Your task to perform on an android device: Show me productivity apps on the Play Store Image 0: 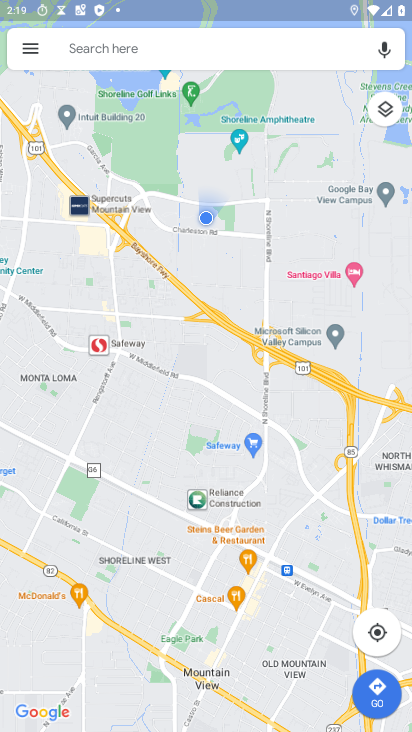
Step 0: press home button
Your task to perform on an android device: Show me productivity apps on the Play Store Image 1: 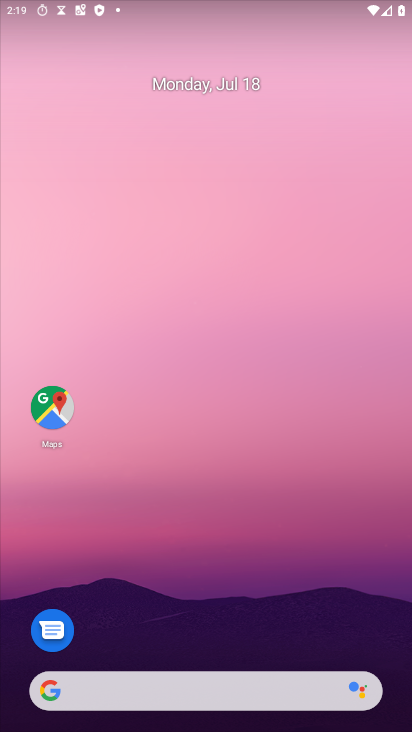
Step 1: drag from (241, 631) to (215, 92)
Your task to perform on an android device: Show me productivity apps on the Play Store Image 2: 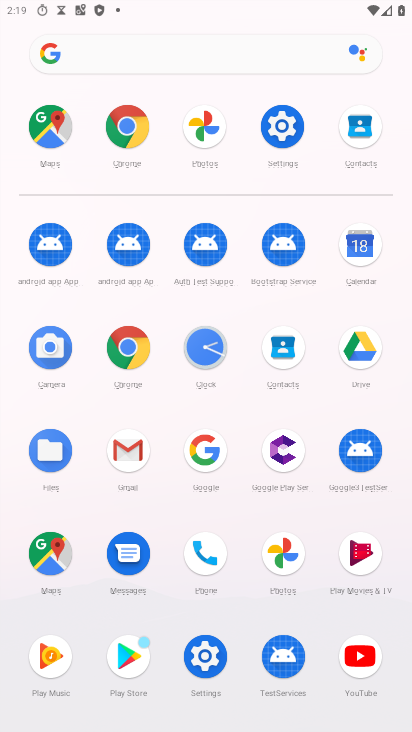
Step 2: click (130, 655)
Your task to perform on an android device: Show me productivity apps on the Play Store Image 3: 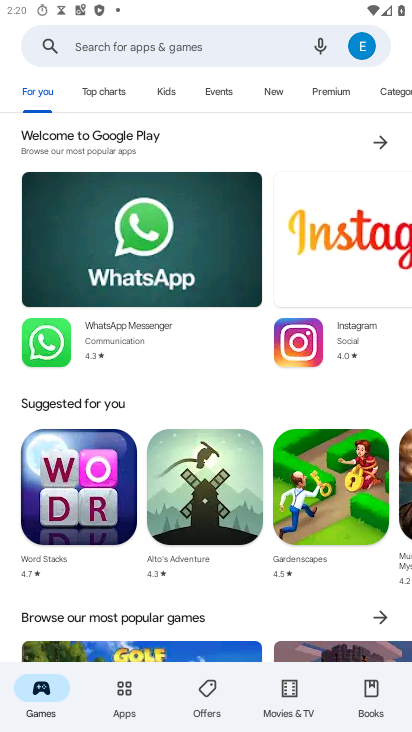
Step 3: click (121, 696)
Your task to perform on an android device: Show me productivity apps on the Play Store Image 4: 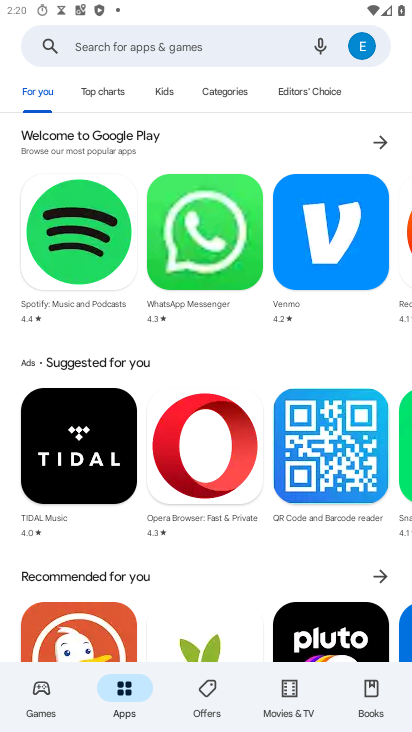
Step 4: drag from (248, 569) to (266, 56)
Your task to perform on an android device: Show me productivity apps on the Play Store Image 5: 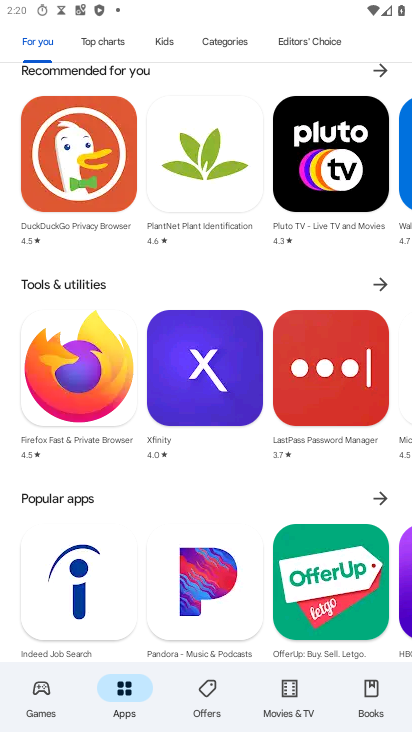
Step 5: drag from (237, 507) to (281, 99)
Your task to perform on an android device: Show me productivity apps on the Play Store Image 6: 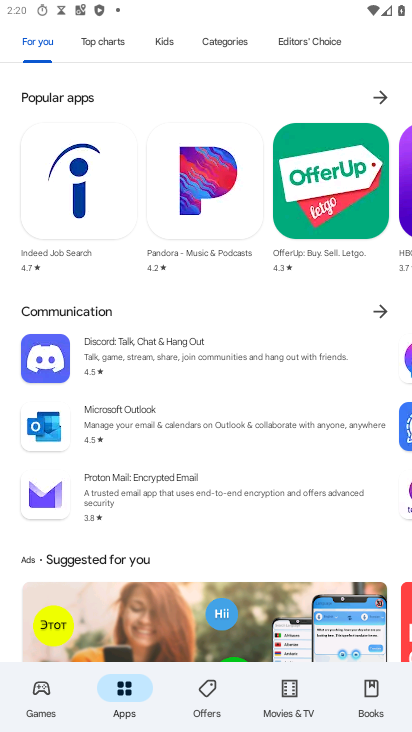
Step 6: drag from (275, 478) to (310, 126)
Your task to perform on an android device: Show me productivity apps on the Play Store Image 7: 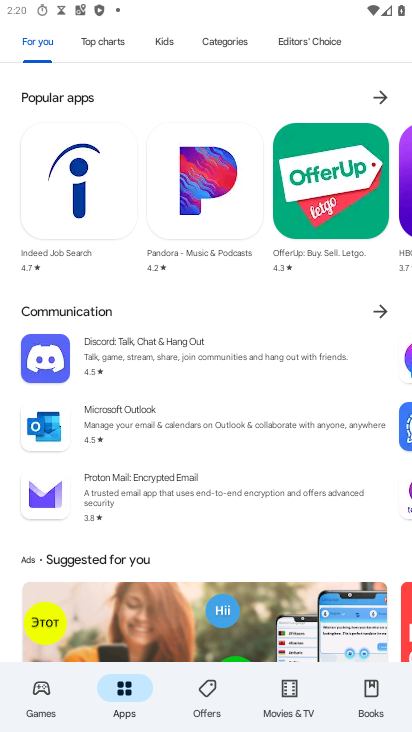
Step 7: drag from (221, 551) to (297, 162)
Your task to perform on an android device: Show me productivity apps on the Play Store Image 8: 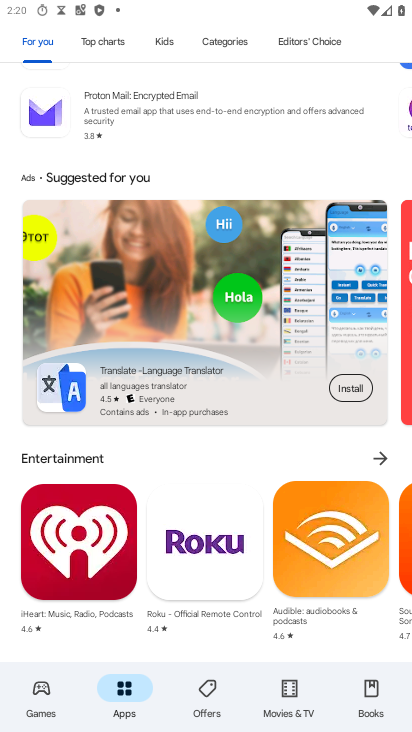
Step 8: drag from (269, 595) to (280, 197)
Your task to perform on an android device: Show me productivity apps on the Play Store Image 9: 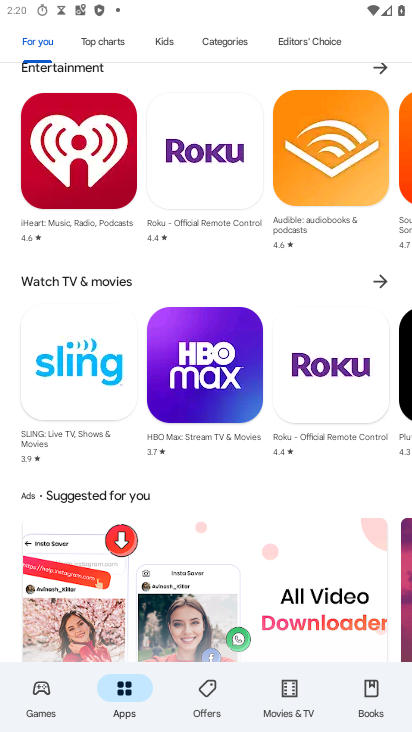
Step 9: drag from (216, 581) to (238, 80)
Your task to perform on an android device: Show me productivity apps on the Play Store Image 10: 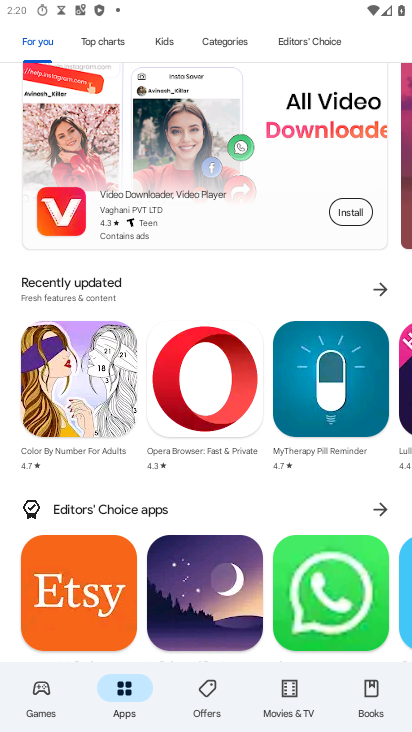
Step 10: drag from (251, 598) to (309, 134)
Your task to perform on an android device: Show me productivity apps on the Play Store Image 11: 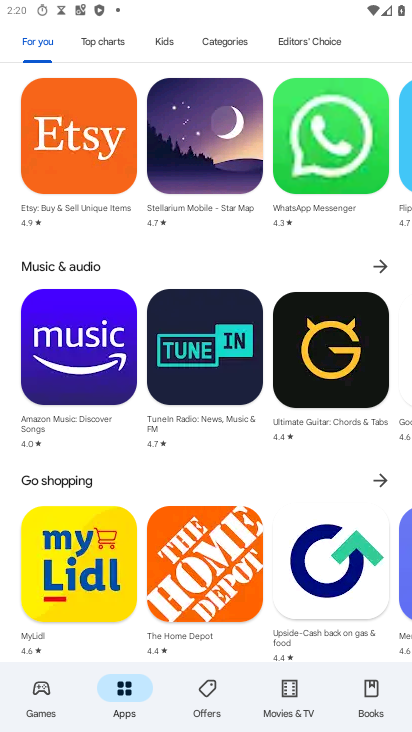
Step 11: drag from (329, 598) to (376, 136)
Your task to perform on an android device: Show me productivity apps on the Play Store Image 12: 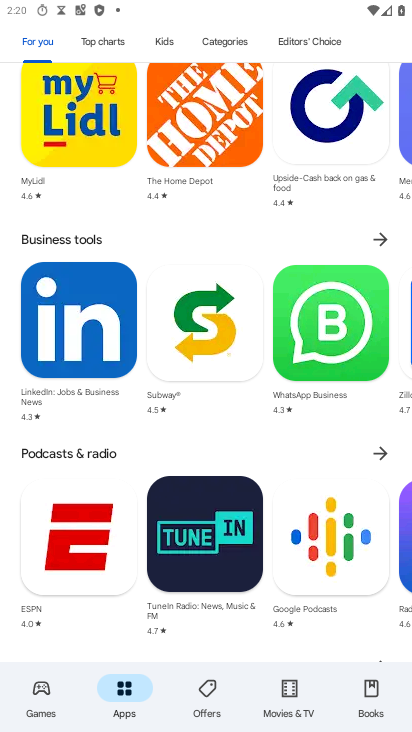
Step 12: drag from (324, 524) to (362, 64)
Your task to perform on an android device: Show me productivity apps on the Play Store Image 13: 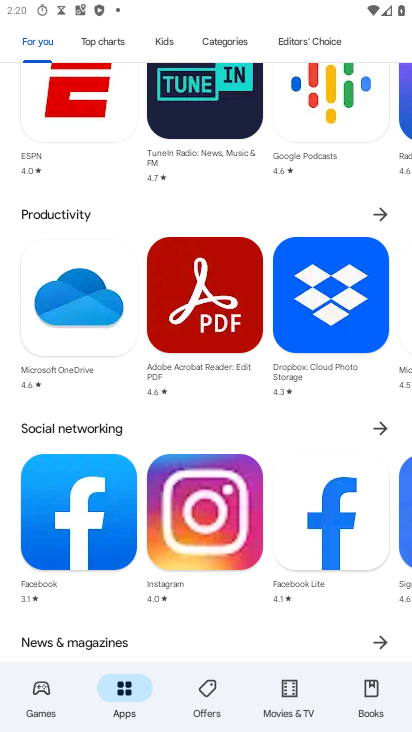
Step 13: click (375, 215)
Your task to perform on an android device: Show me productivity apps on the Play Store Image 14: 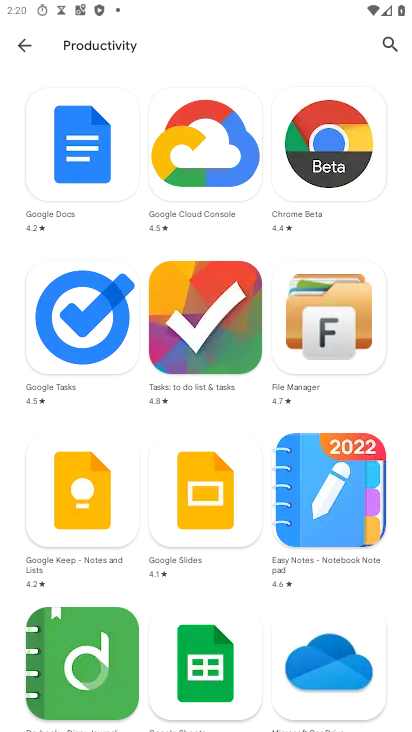
Step 14: task complete